Your task to perform on an android device: Open privacy settings Image 0: 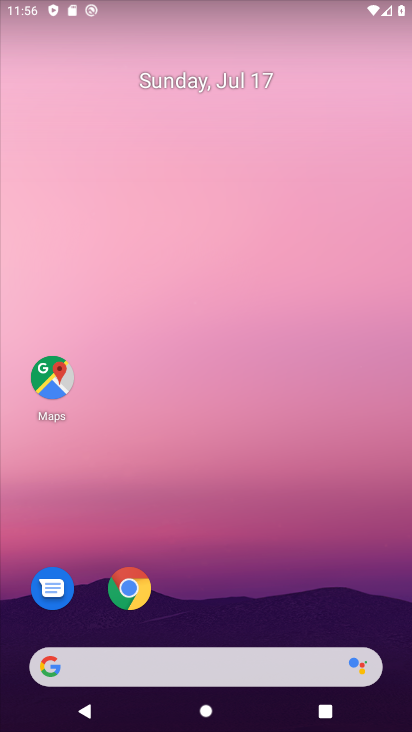
Step 0: drag from (232, 702) to (232, 69)
Your task to perform on an android device: Open privacy settings Image 1: 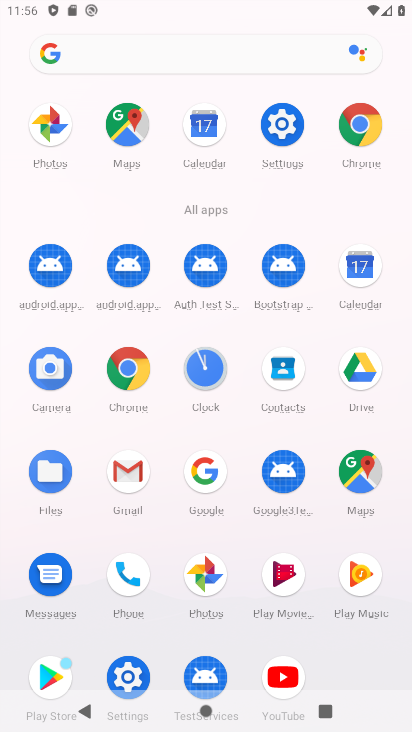
Step 1: click (287, 118)
Your task to perform on an android device: Open privacy settings Image 2: 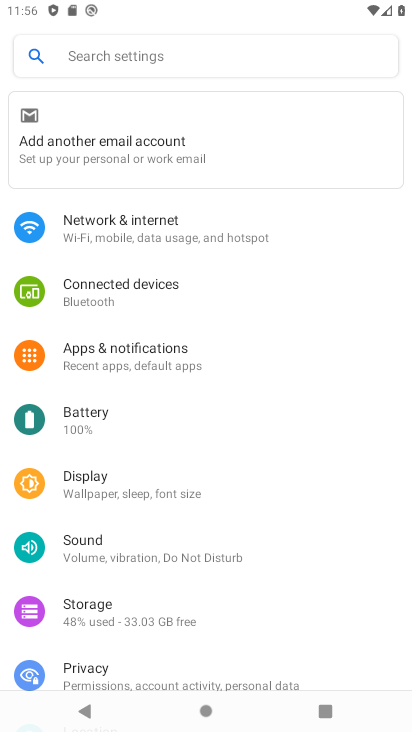
Step 2: click (80, 674)
Your task to perform on an android device: Open privacy settings Image 3: 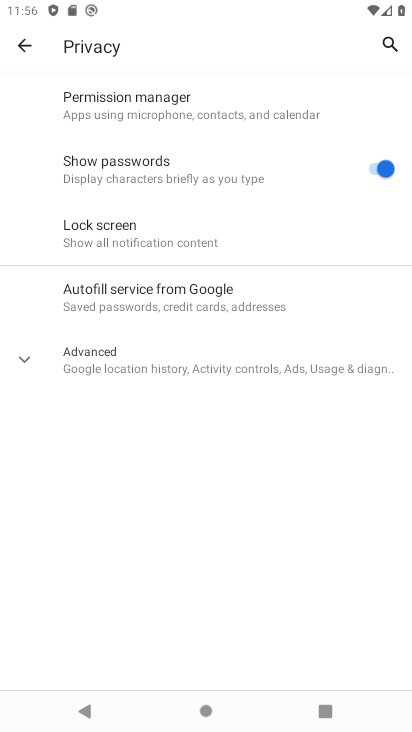
Step 3: task complete